Your task to perform on an android device: toggle wifi Image 0: 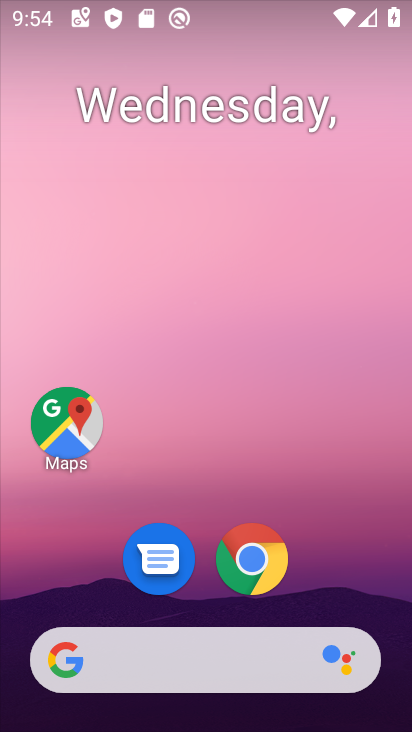
Step 0: drag from (299, 550) to (238, 40)
Your task to perform on an android device: toggle wifi Image 1: 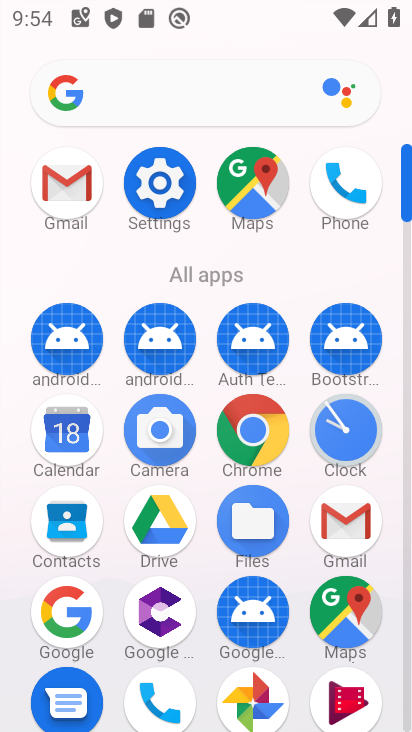
Step 1: click (158, 178)
Your task to perform on an android device: toggle wifi Image 2: 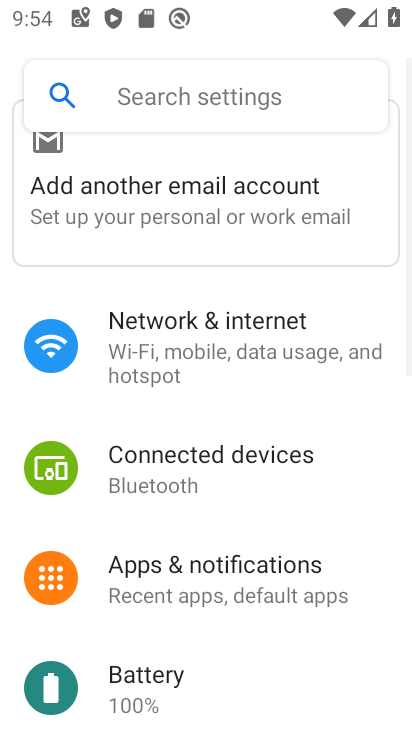
Step 2: click (204, 332)
Your task to perform on an android device: toggle wifi Image 3: 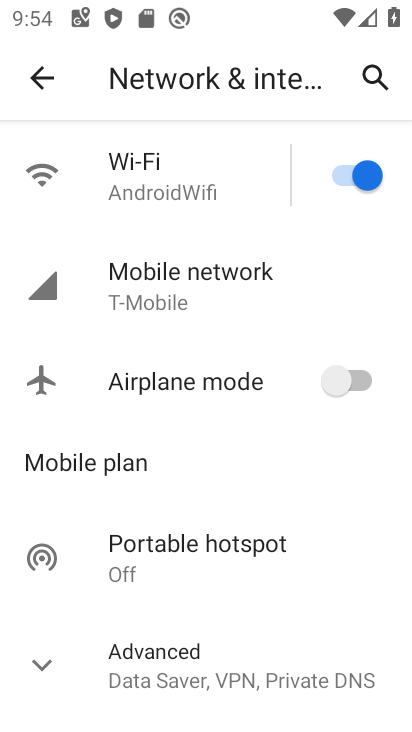
Step 3: click (356, 159)
Your task to perform on an android device: toggle wifi Image 4: 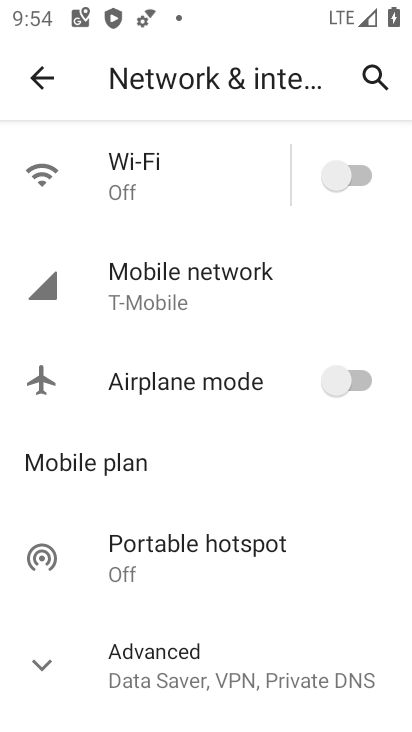
Step 4: task complete